Your task to perform on an android device: turn off priority inbox in the gmail app Image 0: 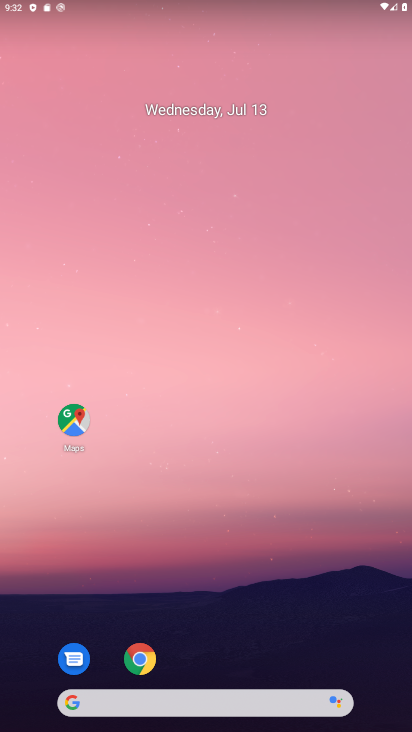
Step 0: drag from (318, 613) to (196, 69)
Your task to perform on an android device: turn off priority inbox in the gmail app Image 1: 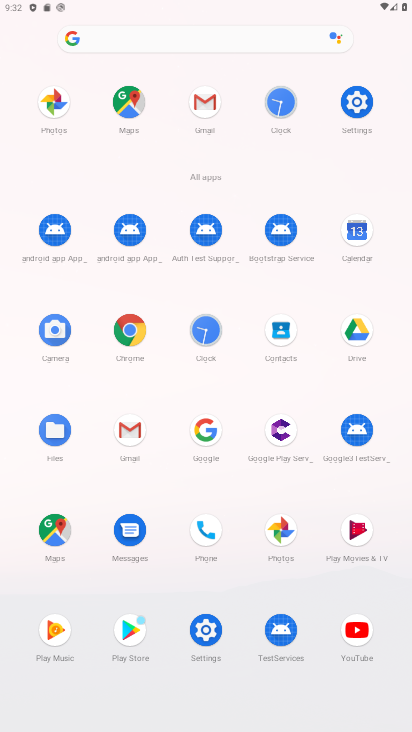
Step 1: click (206, 102)
Your task to perform on an android device: turn off priority inbox in the gmail app Image 2: 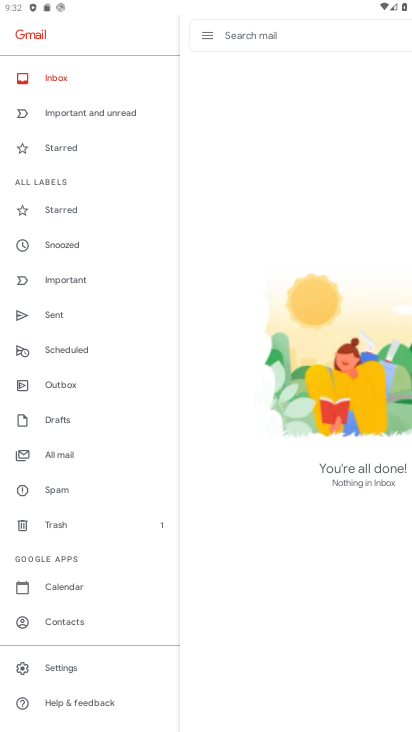
Step 2: drag from (137, 592) to (176, 196)
Your task to perform on an android device: turn off priority inbox in the gmail app Image 3: 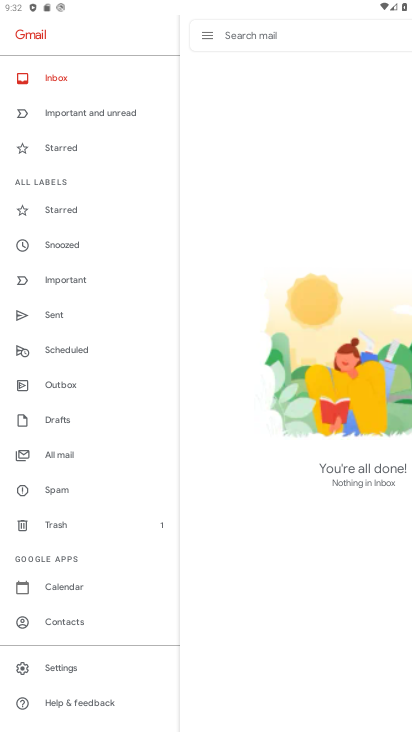
Step 3: click (57, 672)
Your task to perform on an android device: turn off priority inbox in the gmail app Image 4: 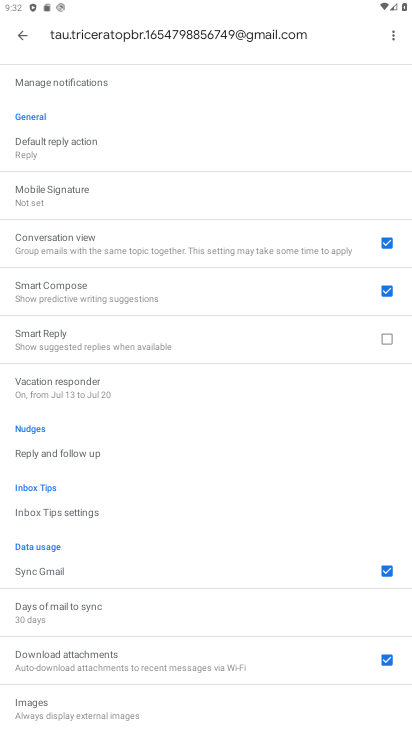
Step 4: drag from (142, 621) to (217, 74)
Your task to perform on an android device: turn off priority inbox in the gmail app Image 5: 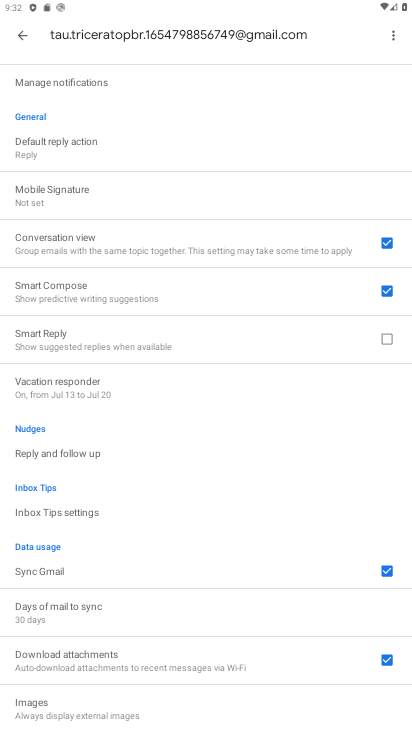
Step 5: drag from (141, 155) to (170, 675)
Your task to perform on an android device: turn off priority inbox in the gmail app Image 6: 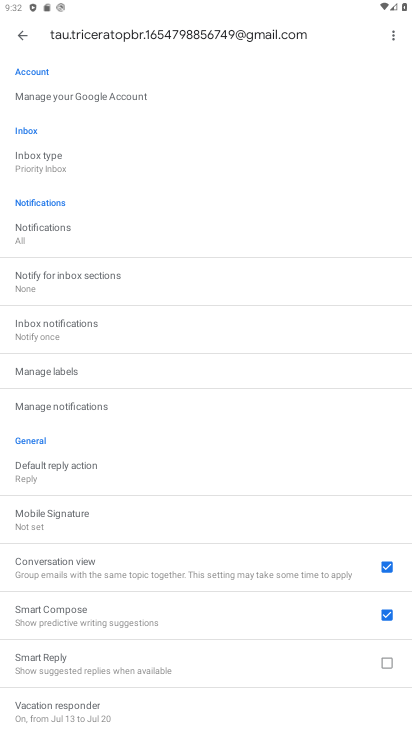
Step 6: click (44, 159)
Your task to perform on an android device: turn off priority inbox in the gmail app Image 7: 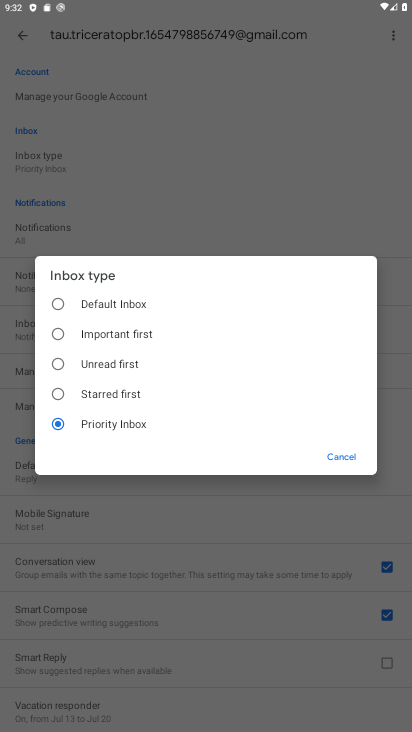
Step 7: task complete